Your task to perform on an android device: set the stopwatch Image 0: 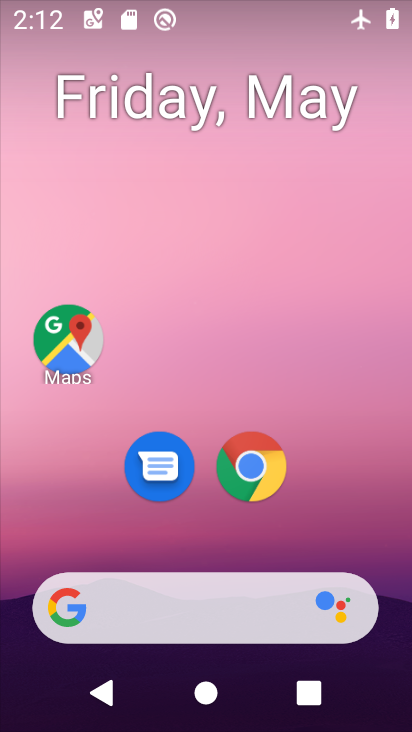
Step 0: drag from (353, 424) to (408, 25)
Your task to perform on an android device: set the stopwatch Image 1: 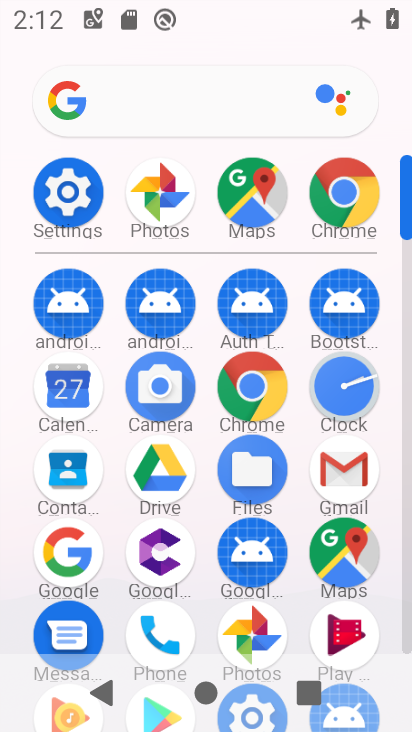
Step 1: click (334, 385)
Your task to perform on an android device: set the stopwatch Image 2: 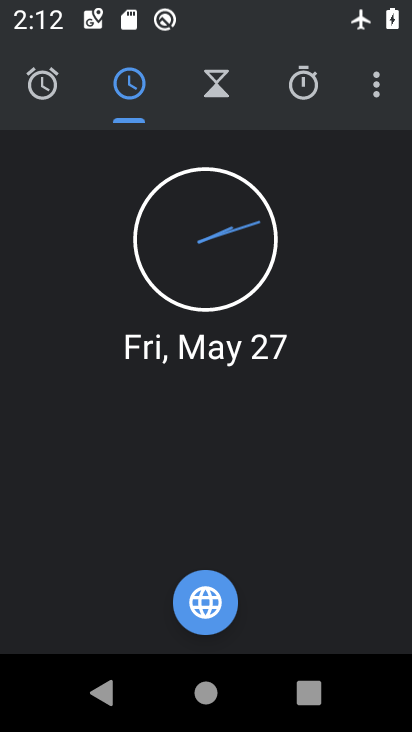
Step 2: click (303, 95)
Your task to perform on an android device: set the stopwatch Image 3: 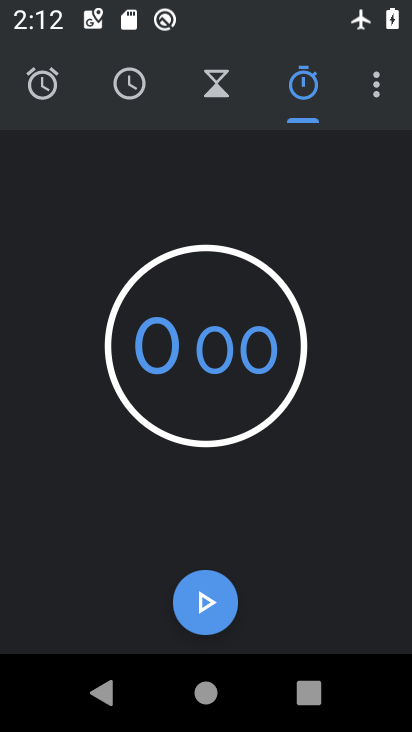
Step 3: click (203, 604)
Your task to perform on an android device: set the stopwatch Image 4: 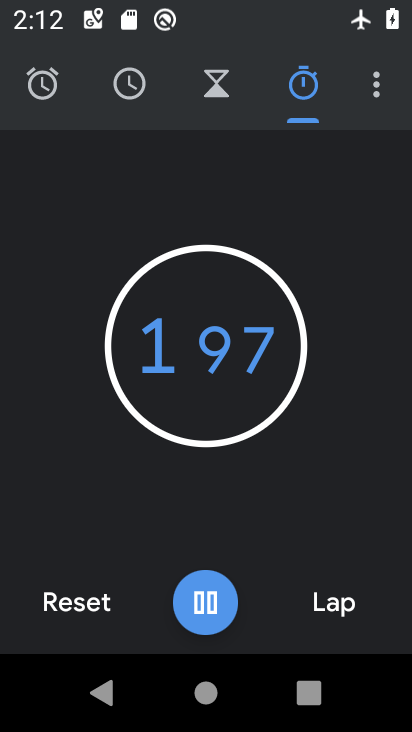
Step 4: task complete